Your task to perform on an android device: Open Android settings Image 0: 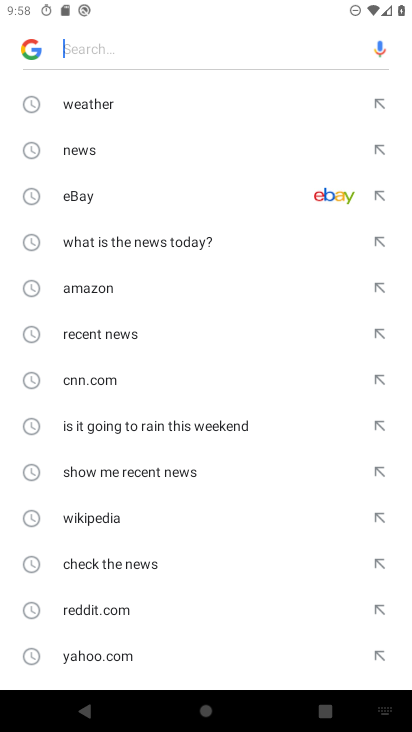
Step 0: press back button
Your task to perform on an android device: Open Android settings Image 1: 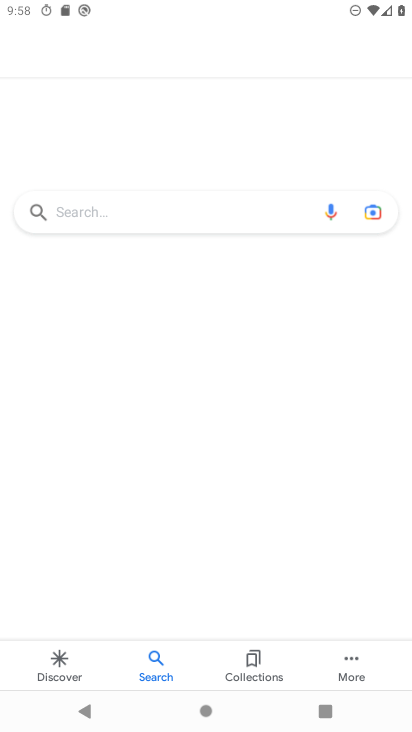
Step 1: press back button
Your task to perform on an android device: Open Android settings Image 2: 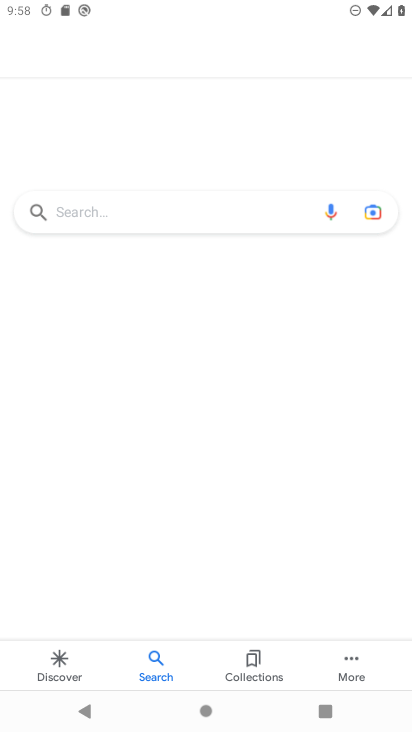
Step 2: press back button
Your task to perform on an android device: Open Android settings Image 3: 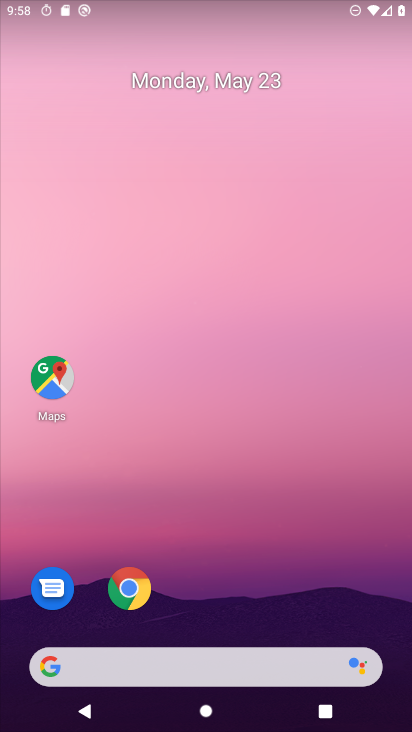
Step 3: drag from (392, 702) to (365, 74)
Your task to perform on an android device: Open Android settings Image 4: 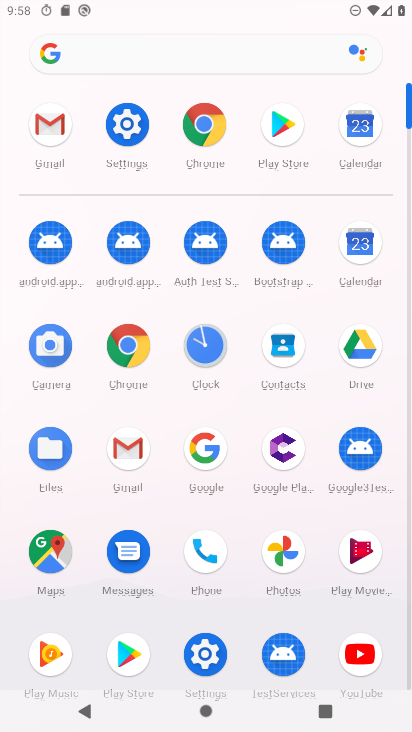
Step 4: click (206, 656)
Your task to perform on an android device: Open Android settings Image 5: 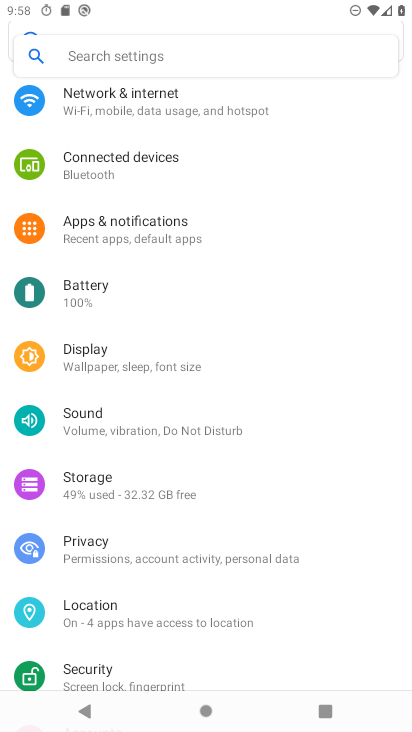
Step 5: task complete